Your task to perform on an android device: toggle sleep mode Image 0: 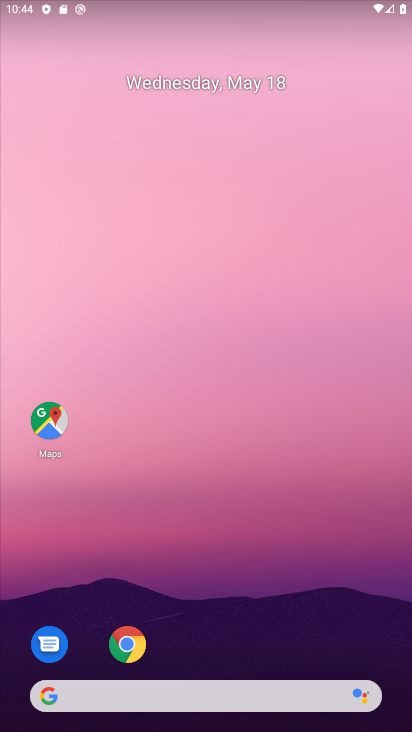
Step 0: drag from (295, 614) to (267, 69)
Your task to perform on an android device: toggle sleep mode Image 1: 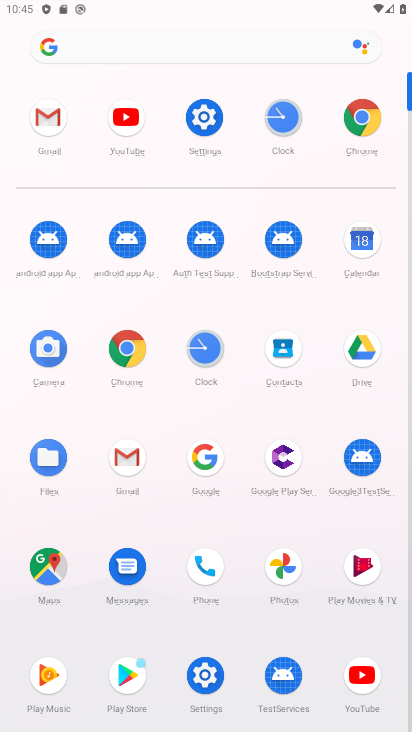
Step 1: click (204, 112)
Your task to perform on an android device: toggle sleep mode Image 2: 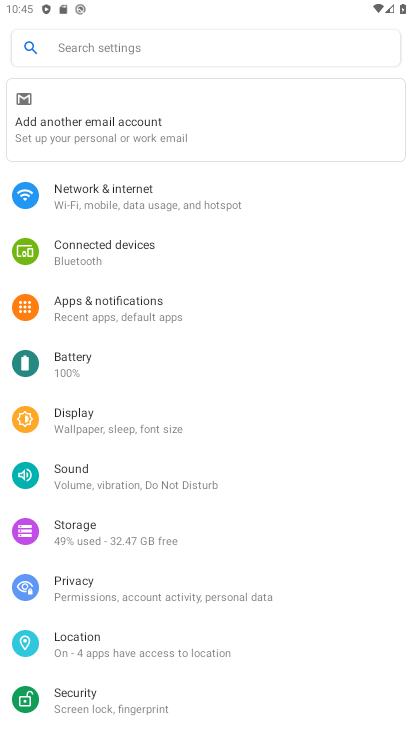
Step 2: task complete